Your task to perform on an android device: Go to privacy settings Image 0: 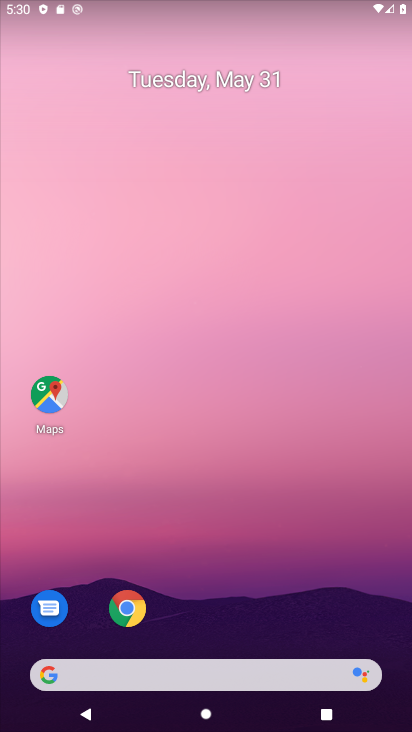
Step 0: drag from (269, 664) to (252, 226)
Your task to perform on an android device: Go to privacy settings Image 1: 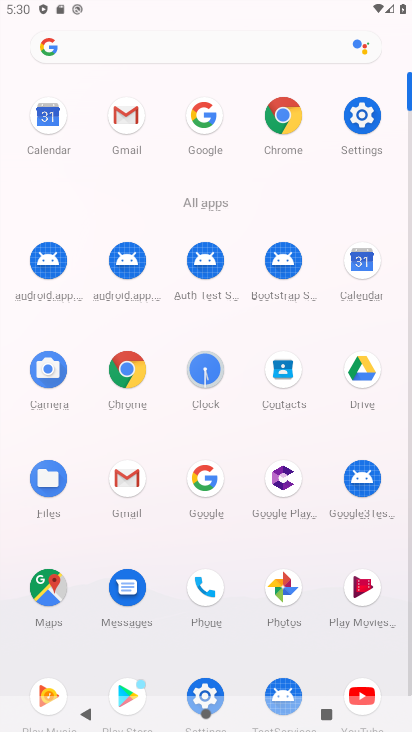
Step 1: click (252, 226)
Your task to perform on an android device: Go to privacy settings Image 2: 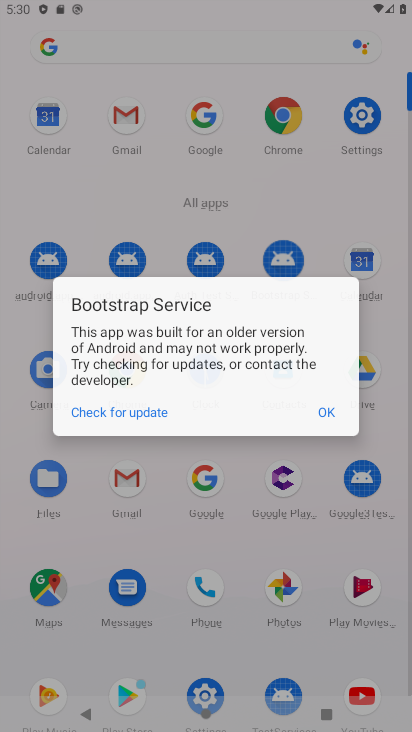
Step 2: click (369, 116)
Your task to perform on an android device: Go to privacy settings Image 3: 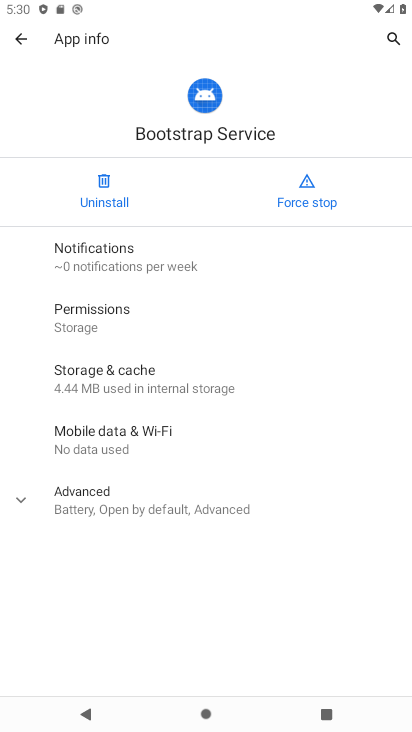
Step 3: click (152, 504)
Your task to perform on an android device: Go to privacy settings Image 4: 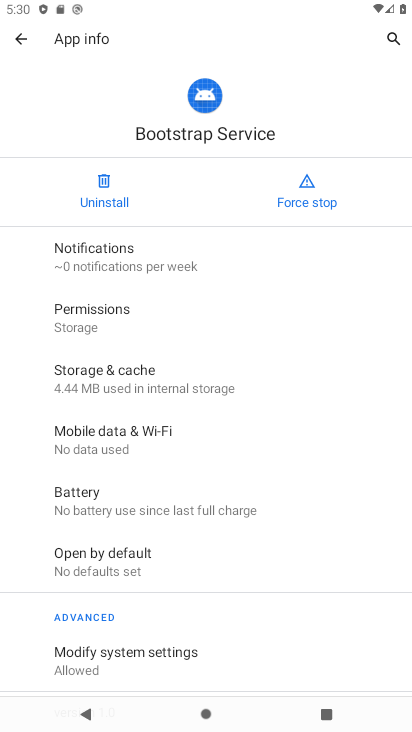
Step 4: task complete